Your task to perform on an android device: Show me the alarms in the clock app Image 0: 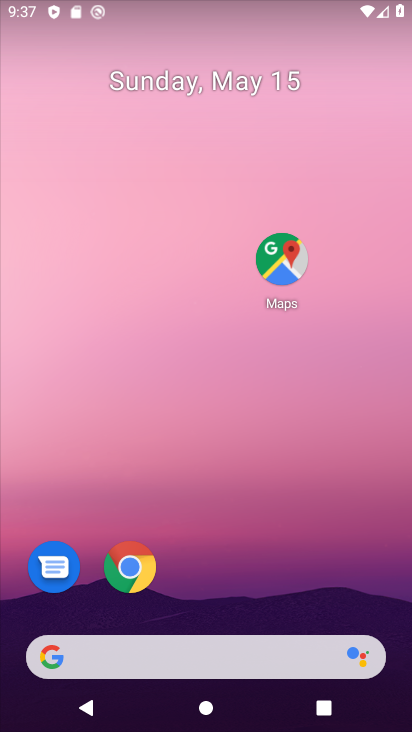
Step 0: drag from (225, 549) to (190, 139)
Your task to perform on an android device: Show me the alarms in the clock app Image 1: 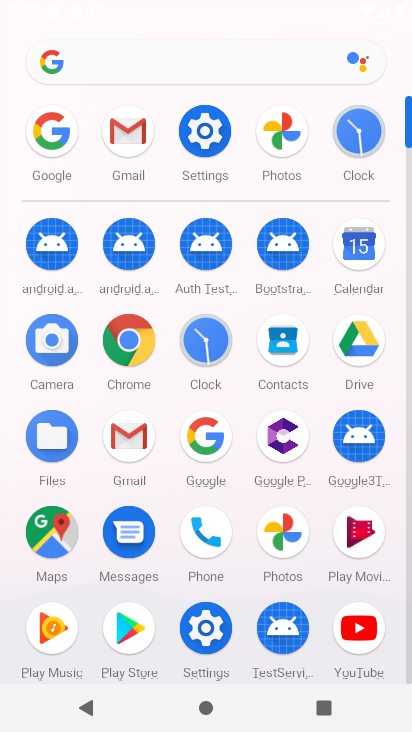
Step 1: click (360, 130)
Your task to perform on an android device: Show me the alarms in the clock app Image 2: 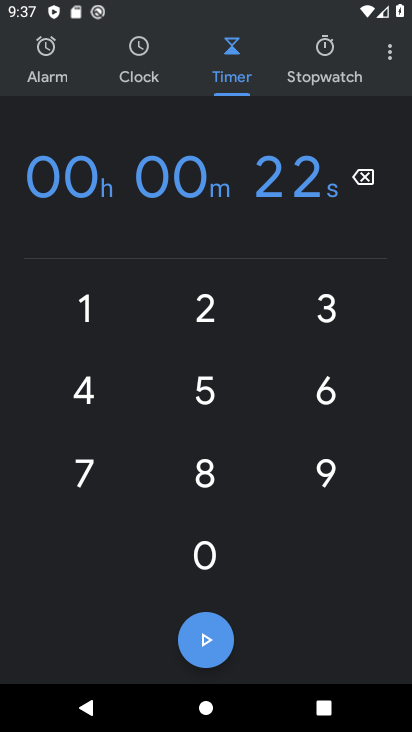
Step 2: click (144, 66)
Your task to perform on an android device: Show me the alarms in the clock app Image 3: 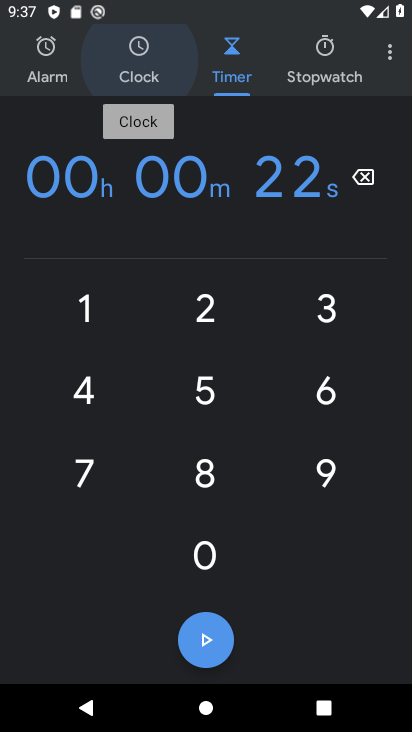
Step 3: click (67, 61)
Your task to perform on an android device: Show me the alarms in the clock app Image 4: 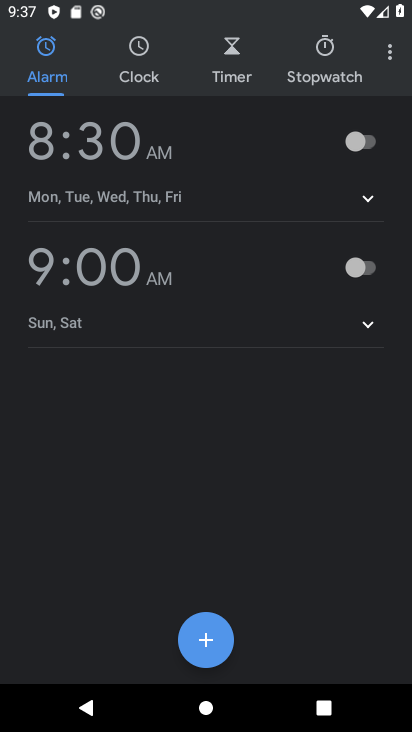
Step 4: click (149, 162)
Your task to perform on an android device: Show me the alarms in the clock app Image 5: 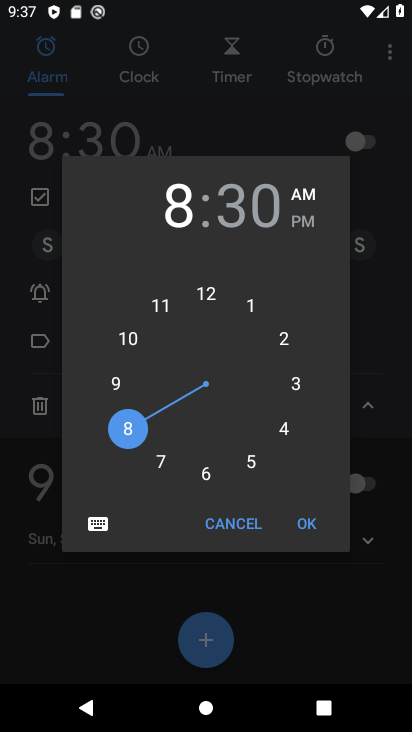
Step 5: task complete